Your task to perform on an android device: Open calendar and show me the first week of next month Image 0: 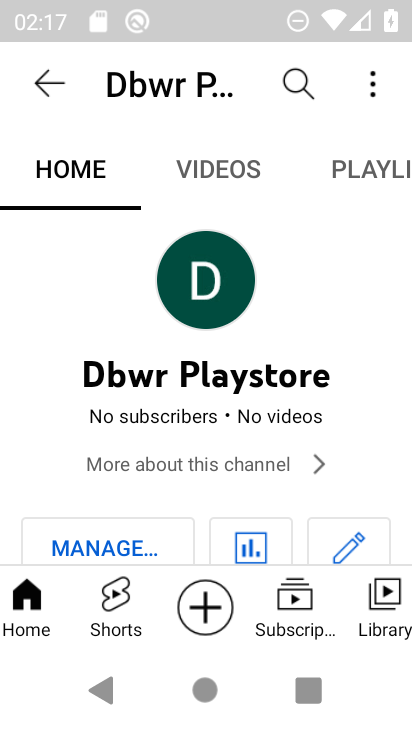
Step 0: press home button
Your task to perform on an android device: Open calendar and show me the first week of next month Image 1: 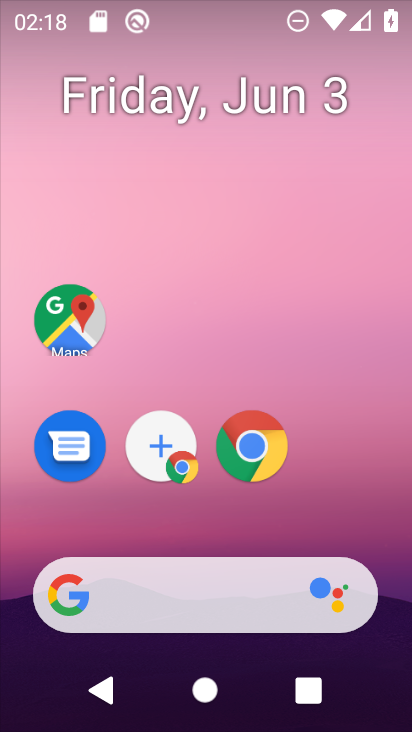
Step 1: drag from (138, 638) to (136, 21)
Your task to perform on an android device: Open calendar and show me the first week of next month Image 2: 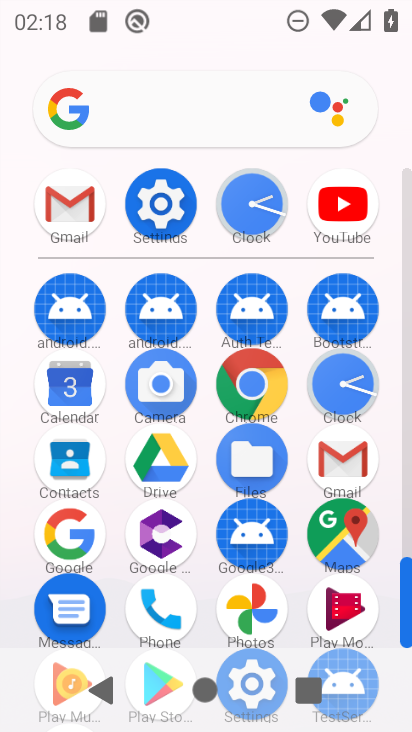
Step 2: click (65, 399)
Your task to perform on an android device: Open calendar and show me the first week of next month Image 3: 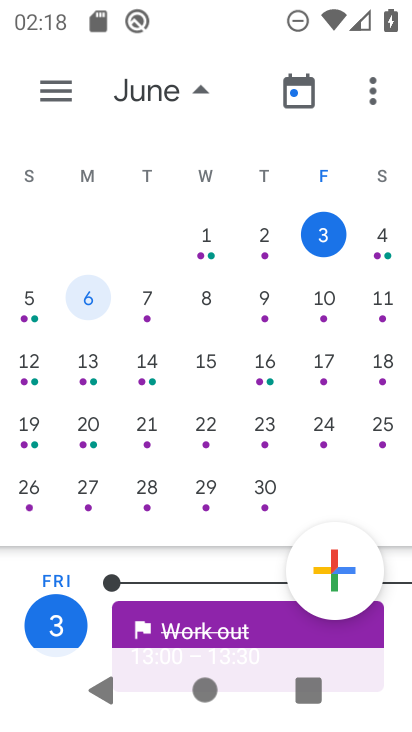
Step 3: task complete